Your task to perform on an android device: Open the web browser Image 0: 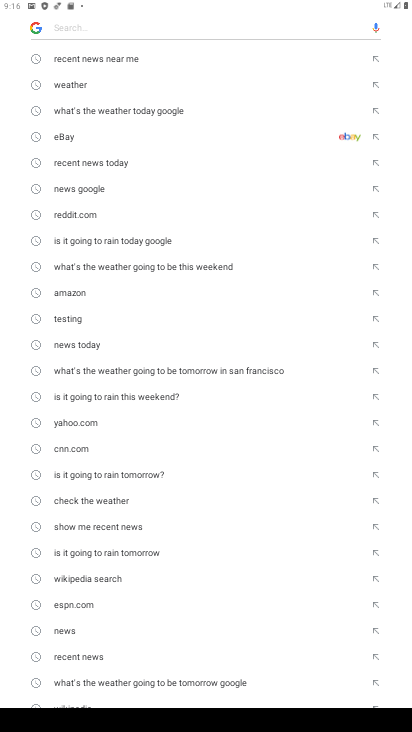
Step 0: press home button
Your task to perform on an android device: Open the web browser Image 1: 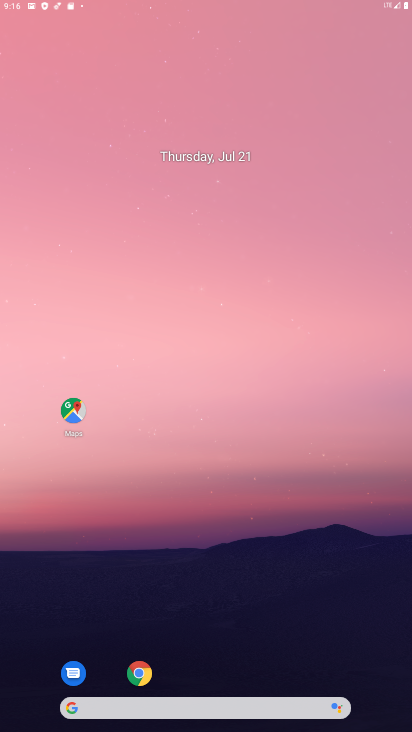
Step 1: drag from (190, 540) to (269, 132)
Your task to perform on an android device: Open the web browser Image 2: 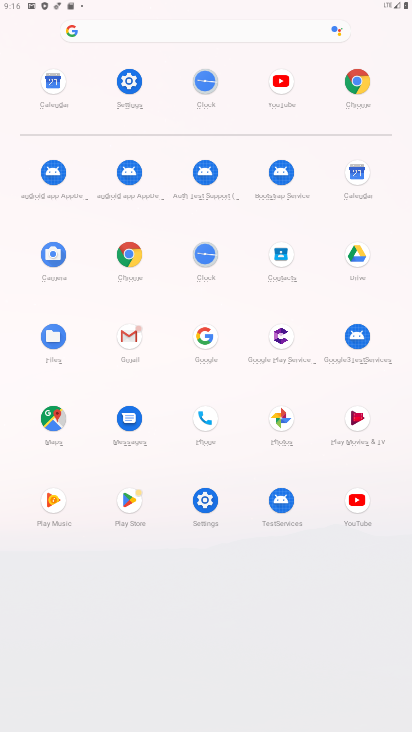
Step 2: click (132, 247)
Your task to perform on an android device: Open the web browser Image 3: 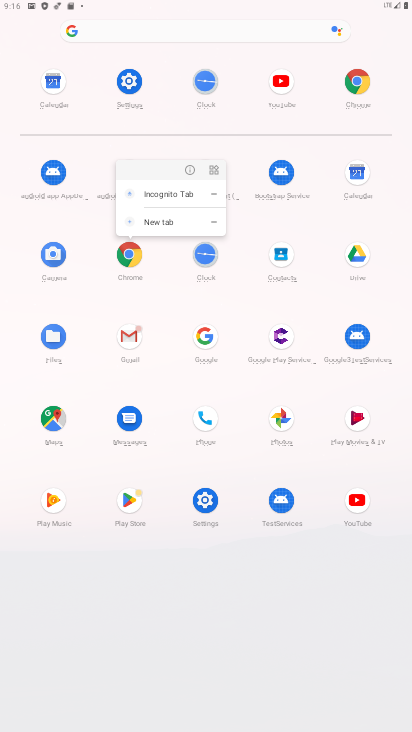
Step 3: click (185, 168)
Your task to perform on an android device: Open the web browser Image 4: 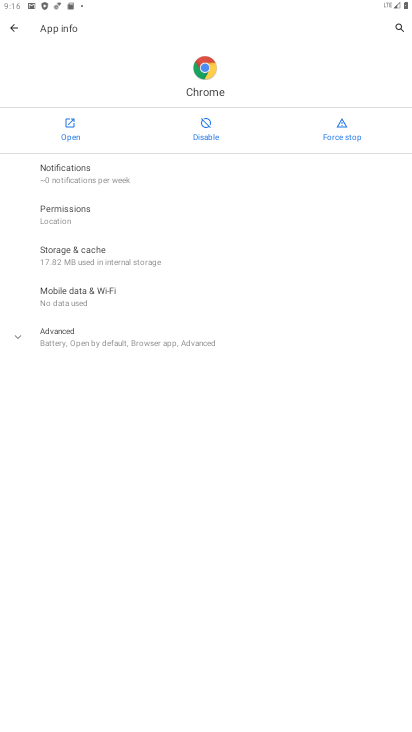
Step 4: click (67, 126)
Your task to perform on an android device: Open the web browser Image 5: 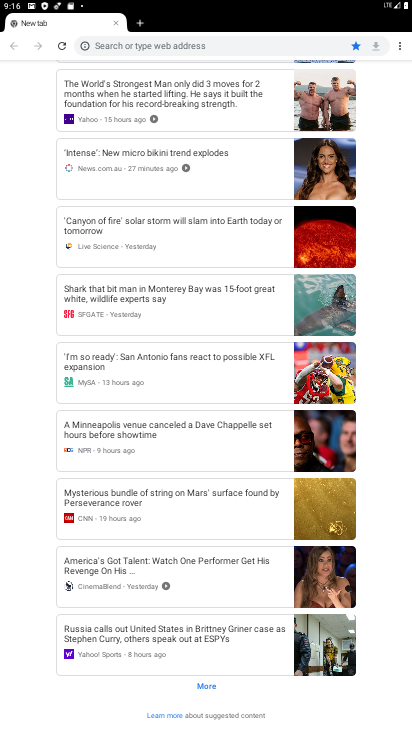
Step 5: task complete